Your task to perform on an android device: turn off location history Image 0: 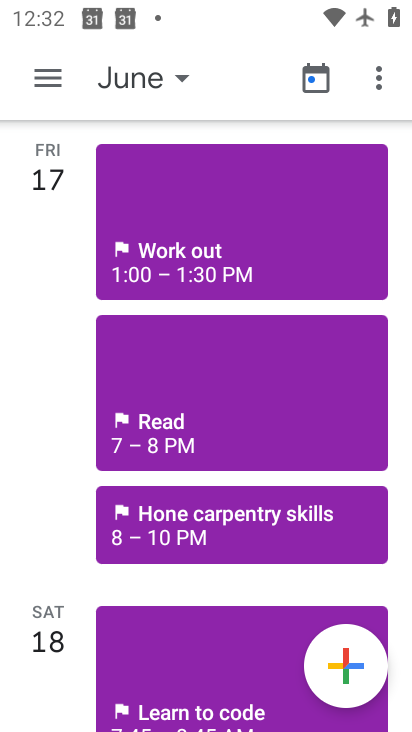
Step 0: press home button
Your task to perform on an android device: turn off location history Image 1: 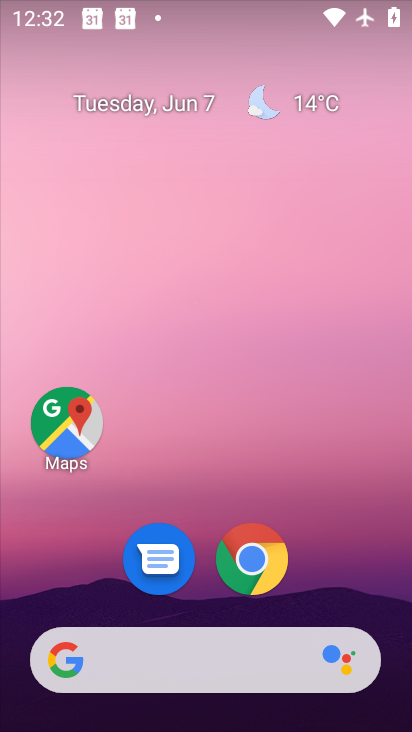
Step 1: click (69, 421)
Your task to perform on an android device: turn off location history Image 2: 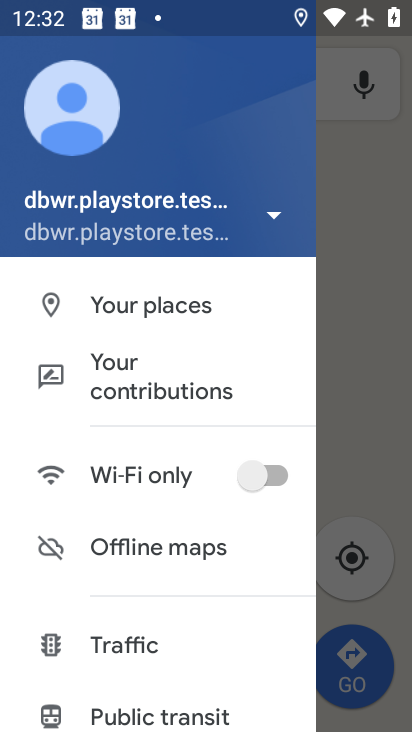
Step 2: drag from (258, 655) to (238, 253)
Your task to perform on an android device: turn off location history Image 3: 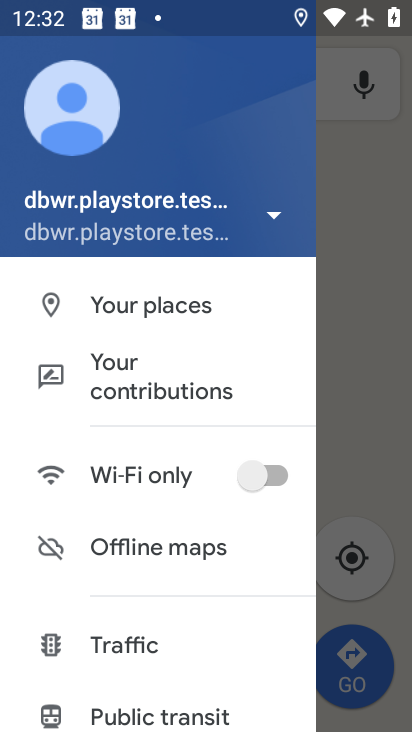
Step 3: drag from (235, 691) to (197, 125)
Your task to perform on an android device: turn off location history Image 4: 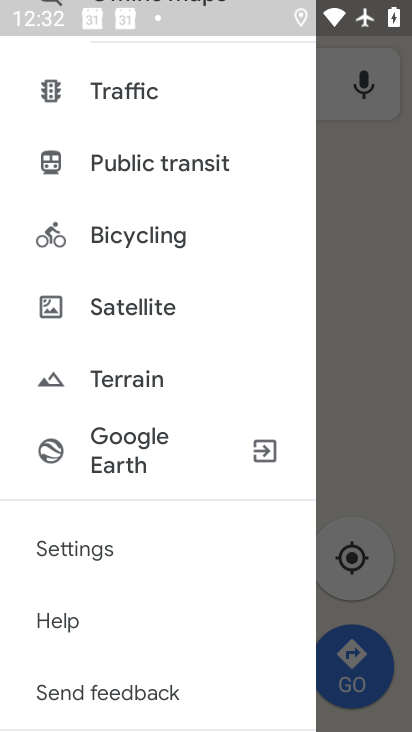
Step 4: click (78, 555)
Your task to perform on an android device: turn off location history Image 5: 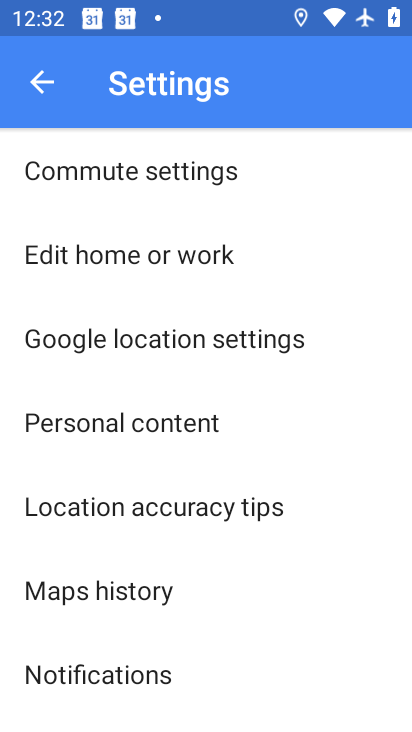
Step 5: click (112, 410)
Your task to perform on an android device: turn off location history Image 6: 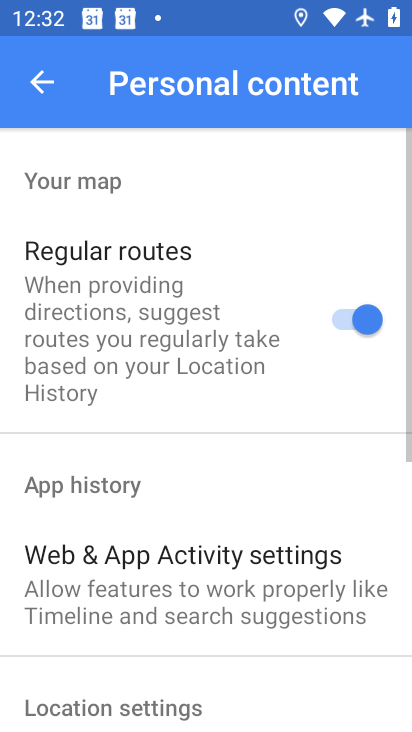
Step 6: drag from (312, 677) to (264, 193)
Your task to perform on an android device: turn off location history Image 7: 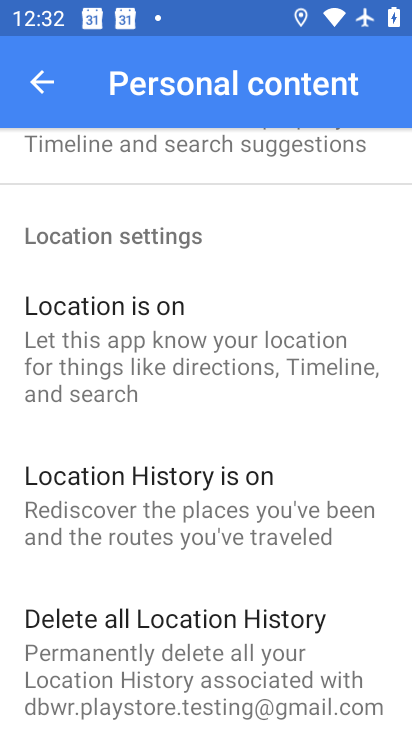
Step 7: click (125, 515)
Your task to perform on an android device: turn off location history Image 8: 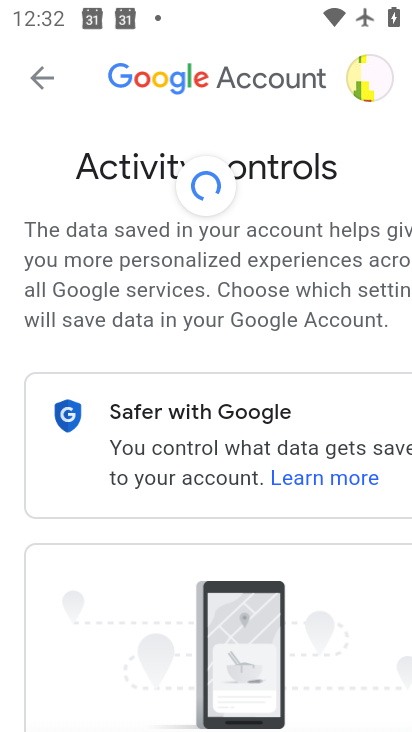
Step 8: task complete